Your task to perform on an android device: Show me recent news Image 0: 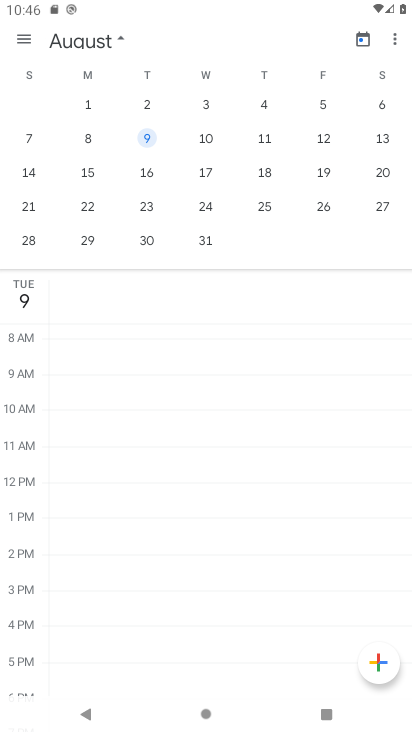
Step 0: press back button
Your task to perform on an android device: Show me recent news Image 1: 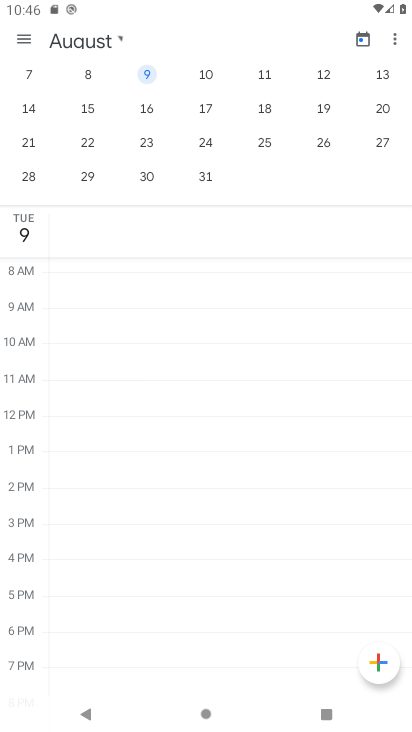
Step 1: press back button
Your task to perform on an android device: Show me recent news Image 2: 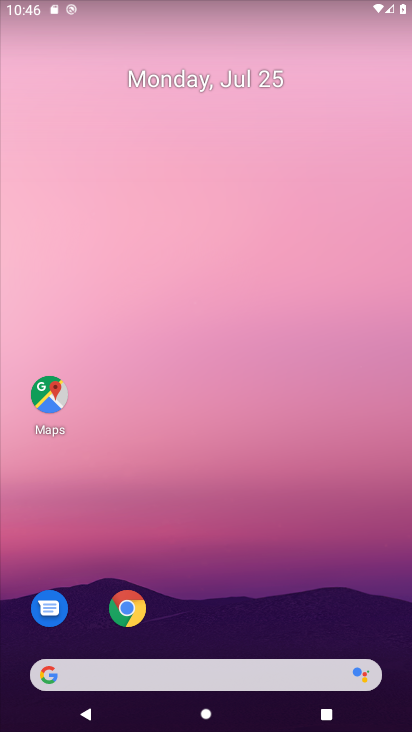
Step 2: drag from (234, 571) to (144, 49)
Your task to perform on an android device: Show me recent news Image 3: 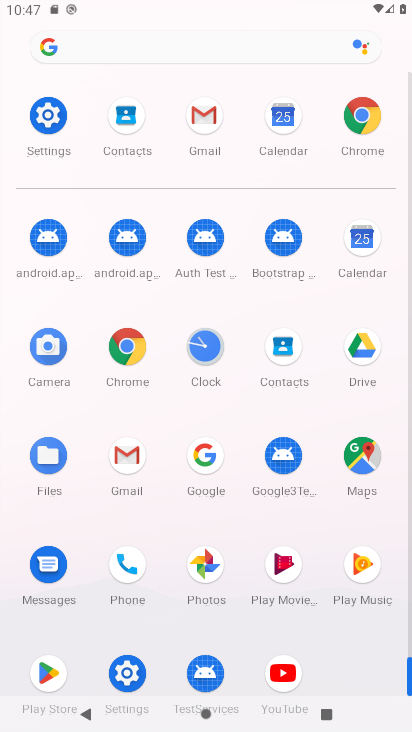
Step 3: click (122, 348)
Your task to perform on an android device: Show me recent news Image 4: 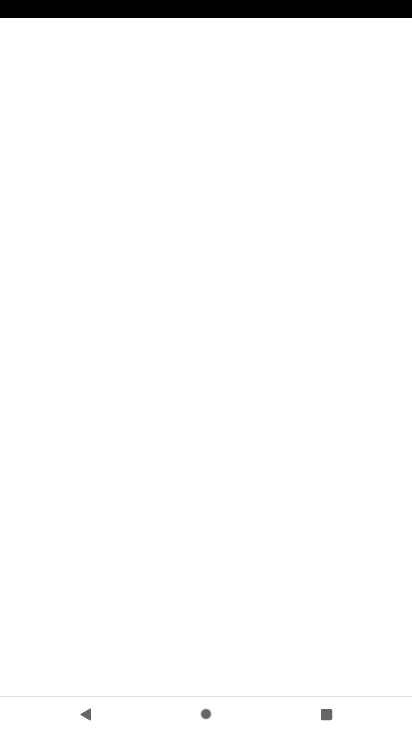
Step 4: click (116, 336)
Your task to perform on an android device: Show me recent news Image 5: 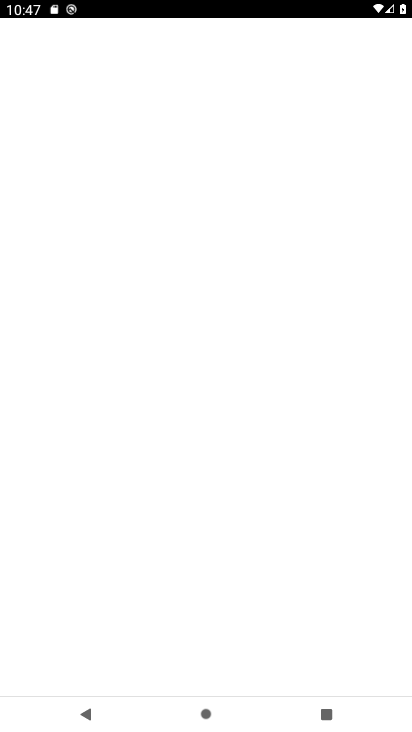
Step 5: click (115, 337)
Your task to perform on an android device: Show me recent news Image 6: 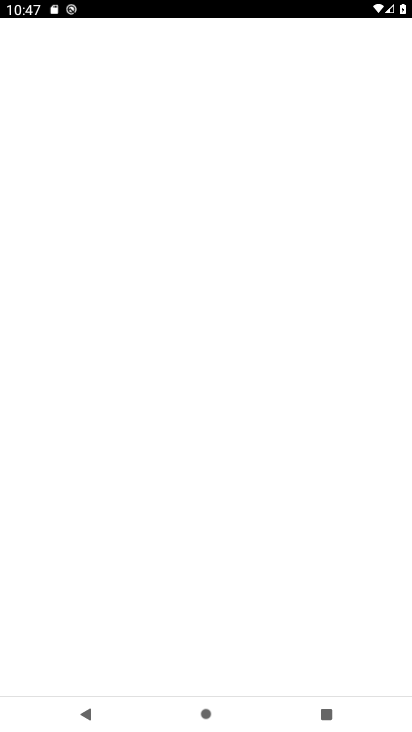
Step 6: click (116, 338)
Your task to perform on an android device: Show me recent news Image 7: 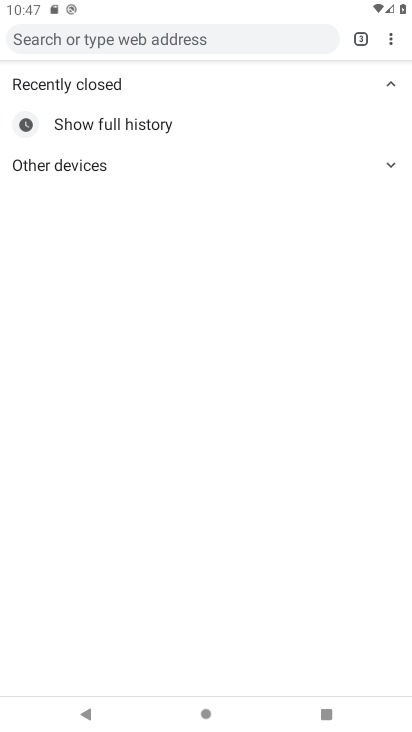
Step 7: click (390, 35)
Your task to perform on an android device: Show me recent news Image 8: 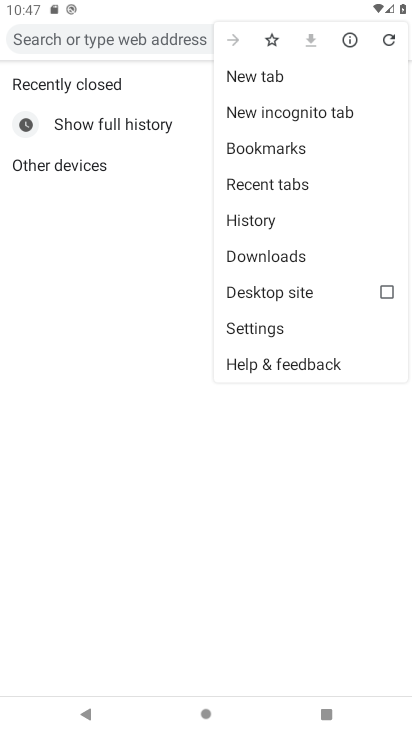
Step 8: click (90, 227)
Your task to perform on an android device: Show me recent news Image 9: 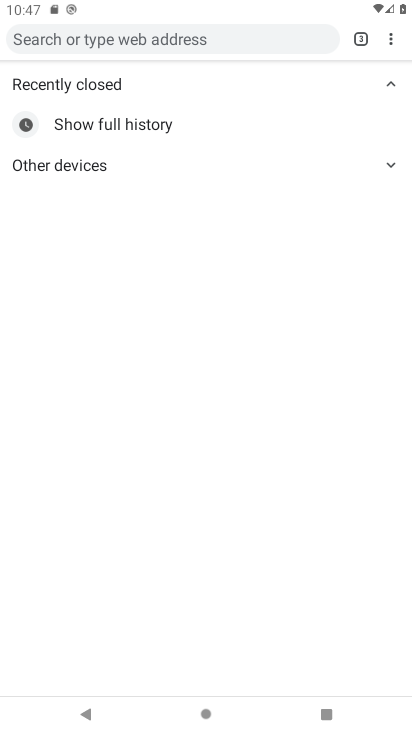
Step 9: click (131, 202)
Your task to perform on an android device: Show me recent news Image 10: 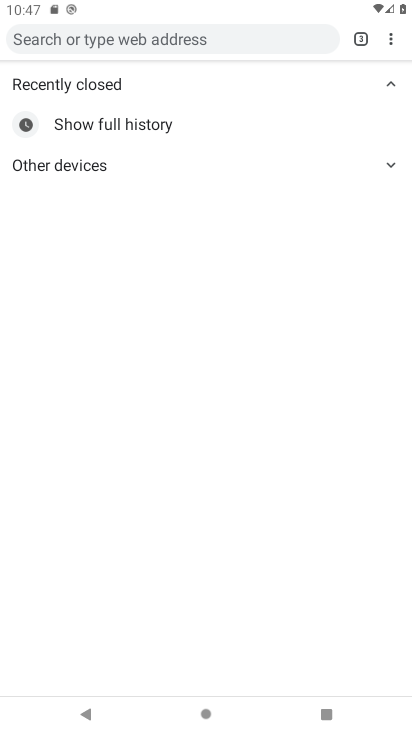
Step 10: task complete